Your task to perform on an android device: Open internet settings Image 0: 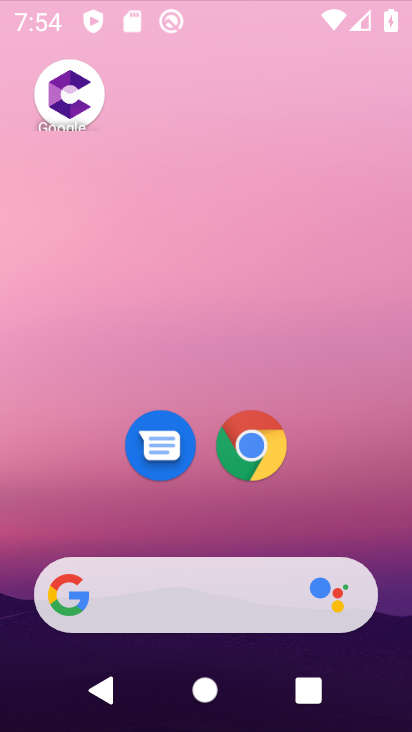
Step 0: press home button
Your task to perform on an android device: Open internet settings Image 1: 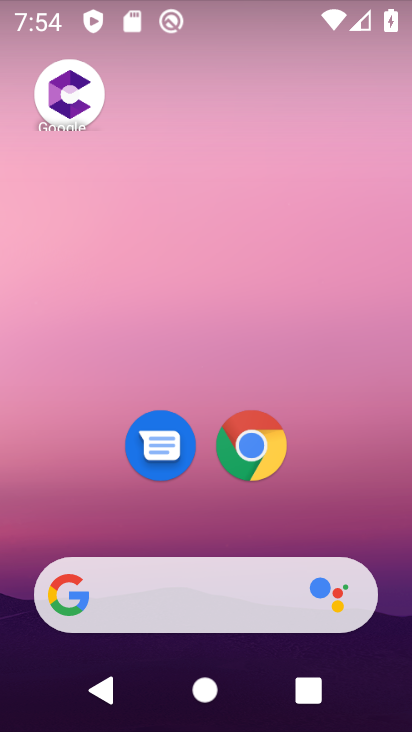
Step 1: drag from (234, 653) to (250, 308)
Your task to perform on an android device: Open internet settings Image 2: 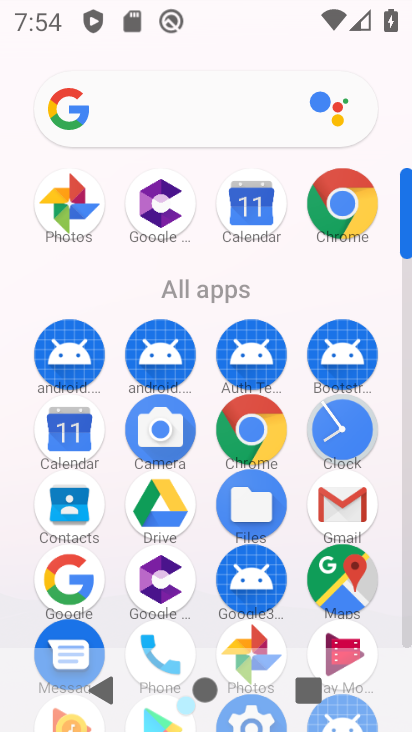
Step 2: drag from (297, 664) to (319, 406)
Your task to perform on an android device: Open internet settings Image 3: 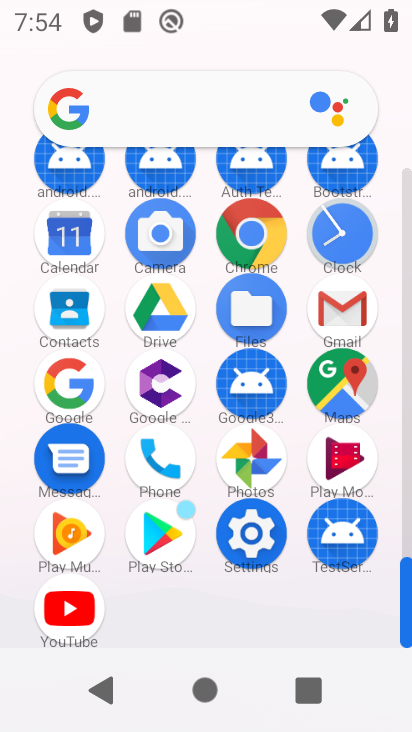
Step 3: click (252, 531)
Your task to perform on an android device: Open internet settings Image 4: 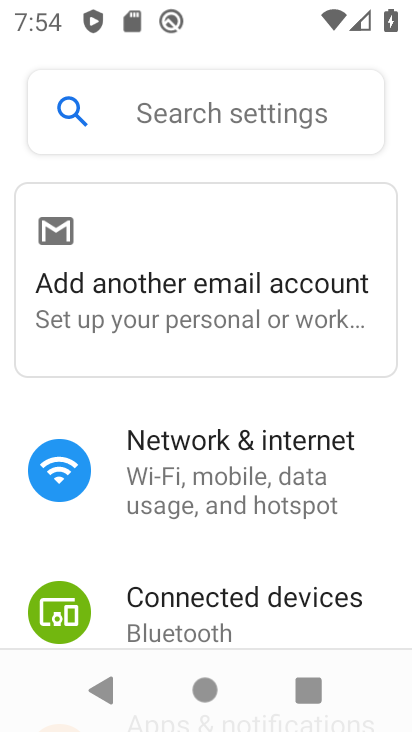
Step 4: click (170, 477)
Your task to perform on an android device: Open internet settings Image 5: 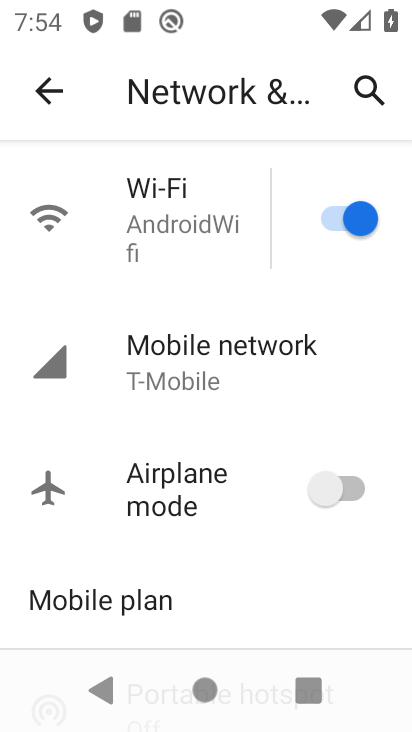
Step 5: task complete